Your task to perform on an android device: Search for panasonic triple a on ebay.com, select the first entry, add it to the cart, then select checkout. Image 0: 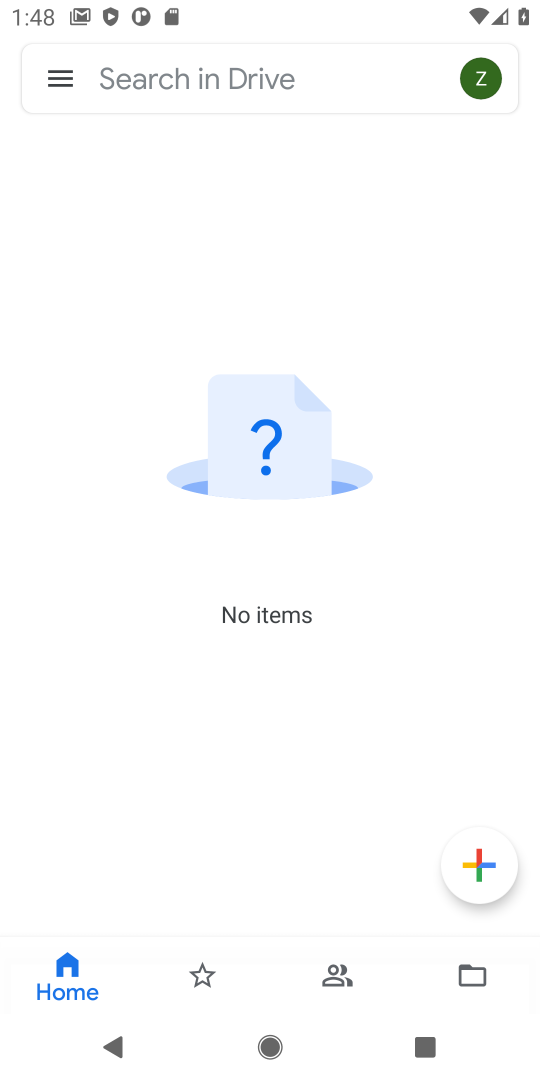
Step 0: press home button
Your task to perform on an android device: Search for panasonic triple a on ebay.com, select the first entry, add it to the cart, then select checkout. Image 1: 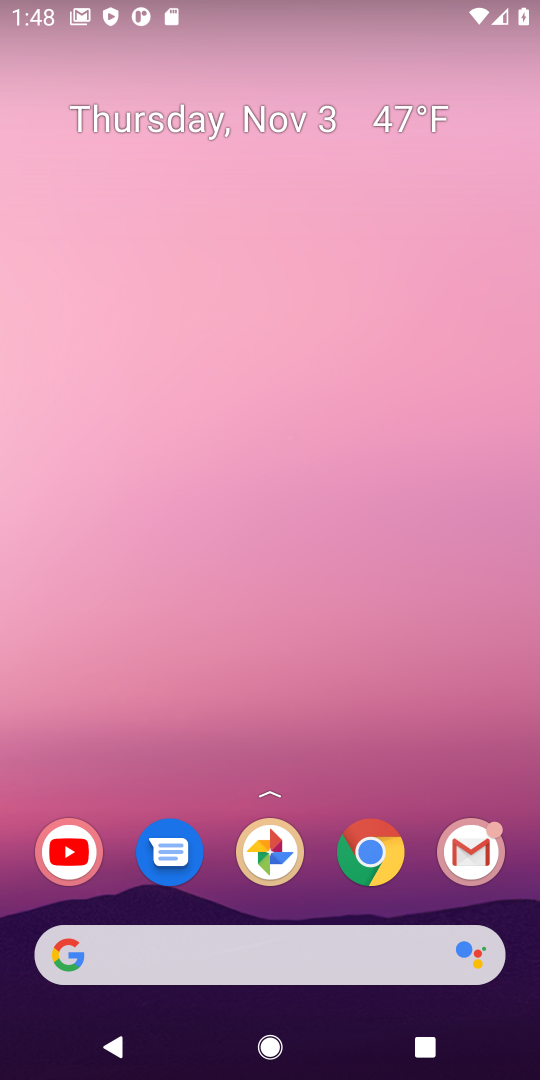
Step 1: click (402, 873)
Your task to perform on an android device: Search for panasonic triple a on ebay.com, select the first entry, add it to the cart, then select checkout. Image 2: 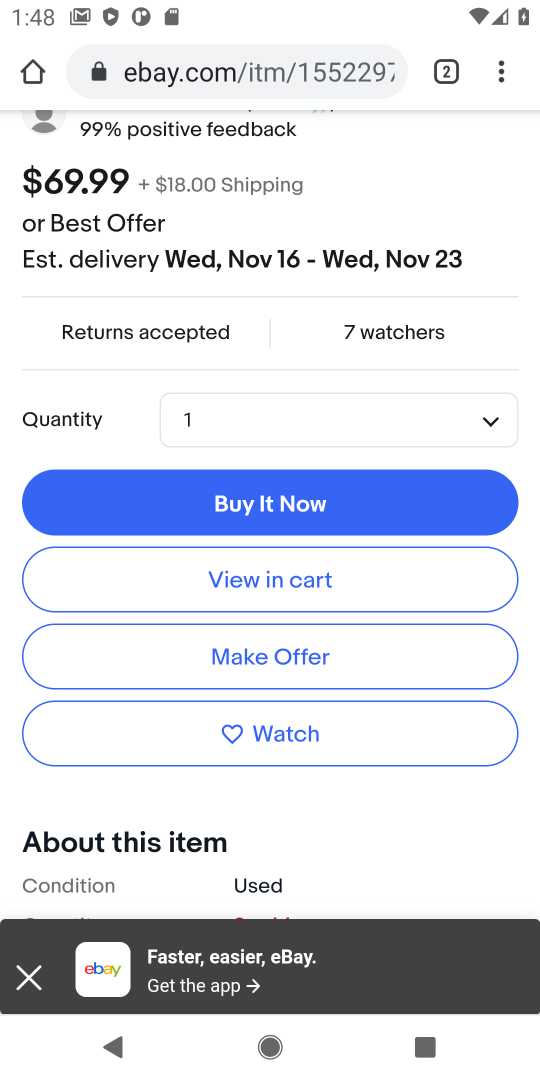
Step 2: drag from (357, 227) to (303, 632)
Your task to perform on an android device: Search for panasonic triple a on ebay.com, select the first entry, add it to the cart, then select checkout. Image 3: 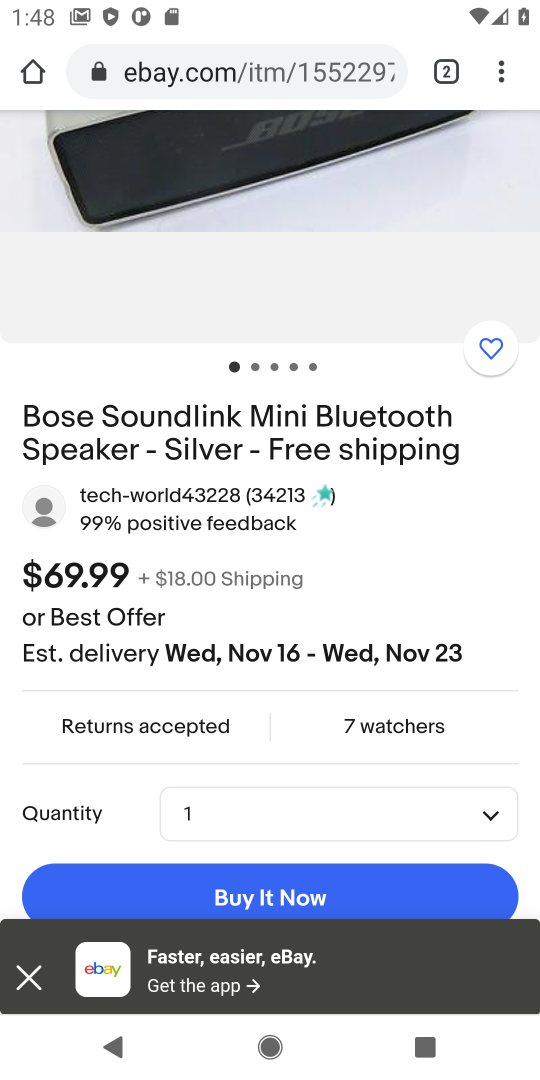
Step 3: drag from (307, 312) to (295, 716)
Your task to perform on an android device: Search for panasonic triple a on ebay.com, select the first entry, add it to the cart, then select checkout. Image 4: 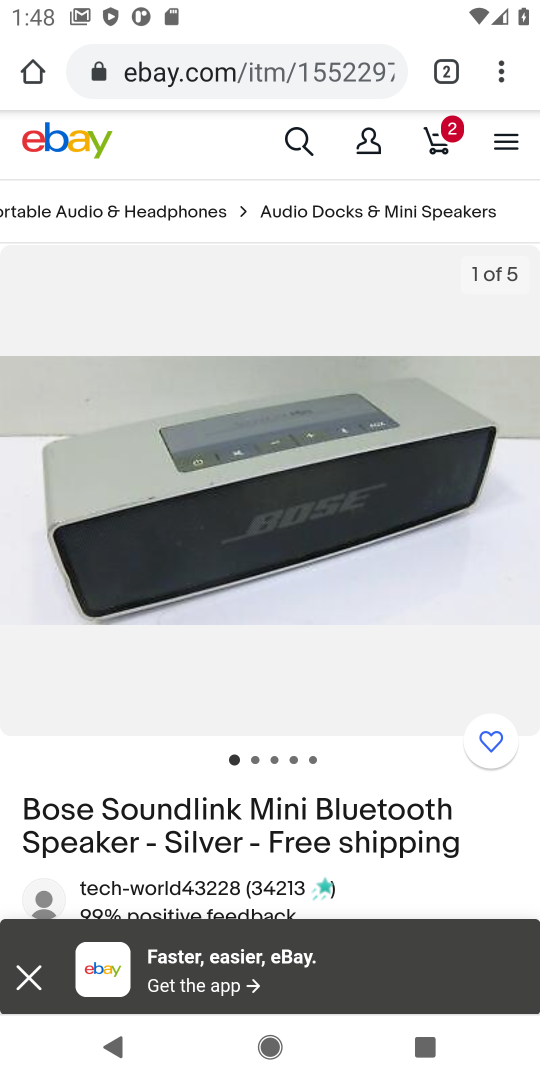
Step 4: drag from (223, 221) to (217, 466)
Your task to perform on an android device: Search for panasonic triple a on ebay.com, select the first entry, add it to the cart, then select checkout. Image 5: 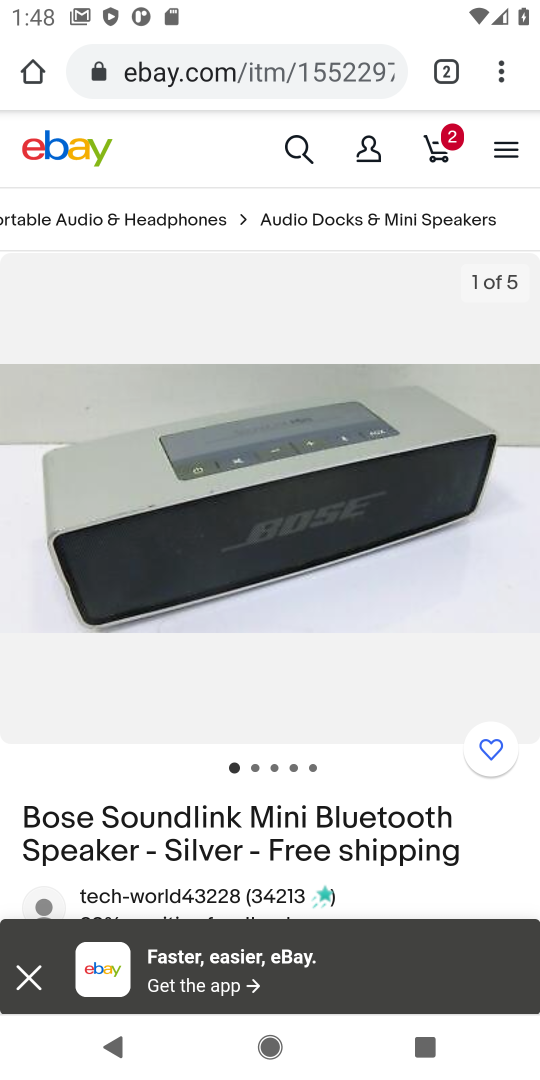
Step 5: click (294, 151)
Your task to perform on an android device: Search for panasonic triple a on ebay.com, select the first entry, add it to the cart, then select checkout. Image 6: 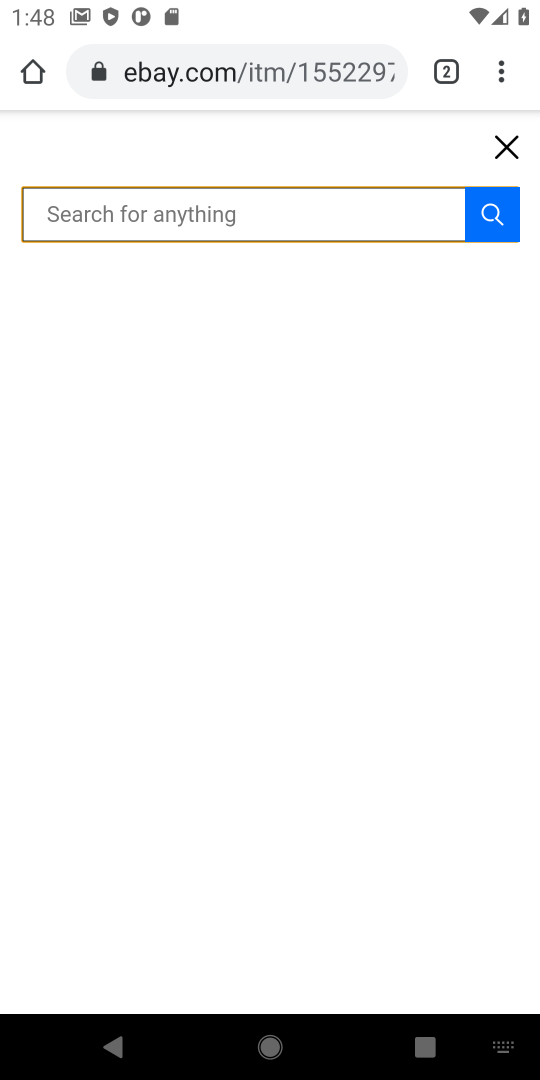
Step 6: type "panasonic triple a"
Your task to perform on an android device: Search for panasonic triple a on ebay.com, select the first entry, add it to the cart, then select checkout. Image 7: 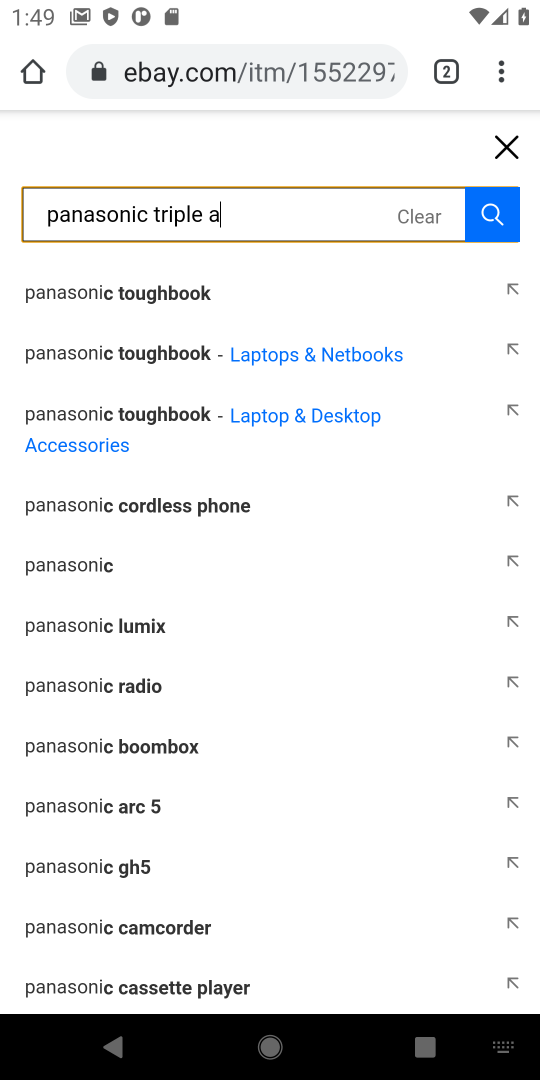
Step 7: click (492, 210)
Your task to perform on an android device: Search for panasonic triple a on ebay.com, select the first entry, add it to the cart, then select checkout. Image 8: 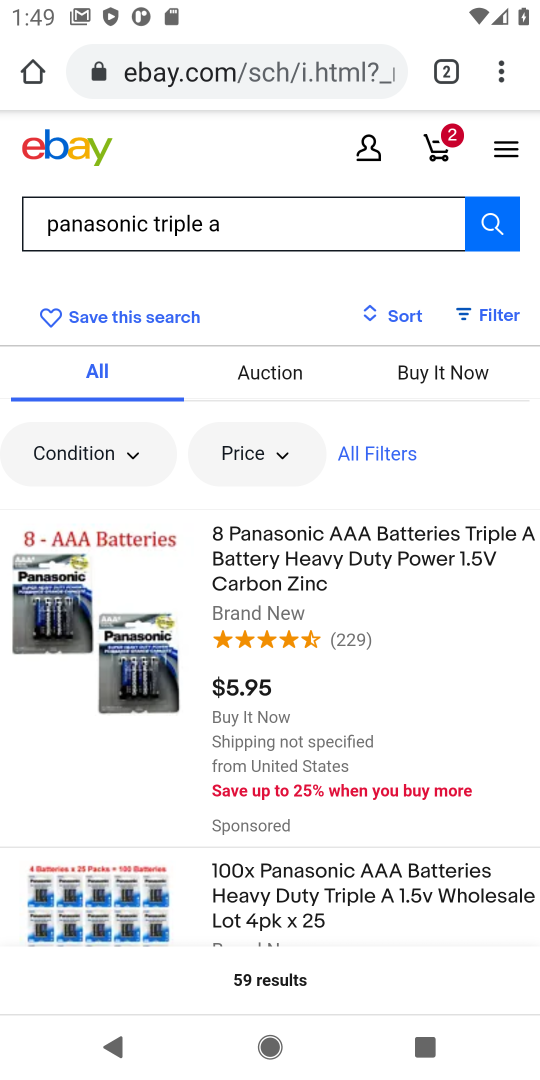
Step 8: click (242, 663)
Your task to perform on an android device: Search for panasonic triple a on ebay.com, select the first entry, add it to the cart, then select checkout. Image 9: 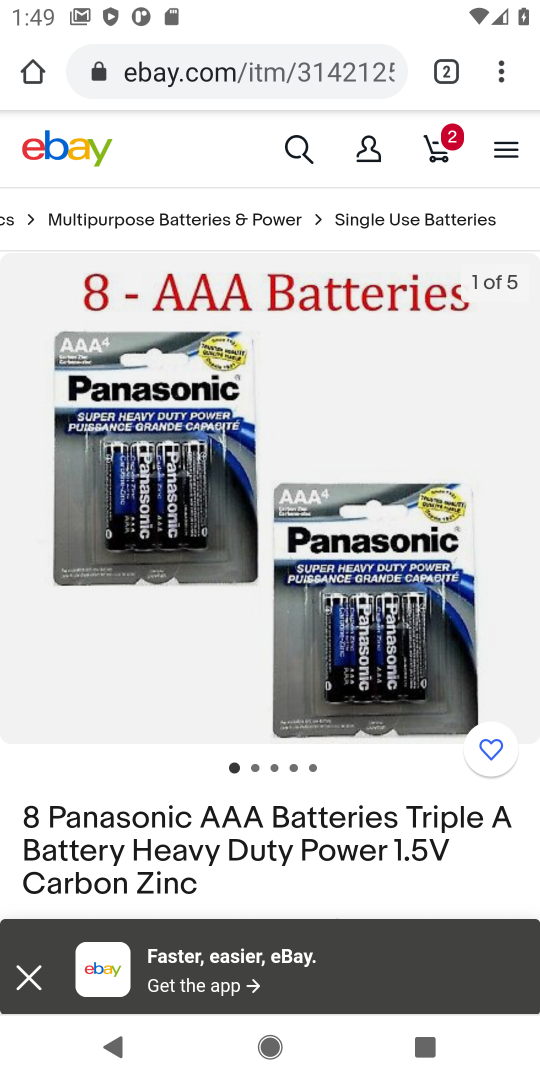
Step 9: drag from (249, 636) to (256, 197)
Your task to perform on an android device: Search for panasonic triple a on ebay.com, select the first entry, add it to the cart, then select checkout. Image 10: 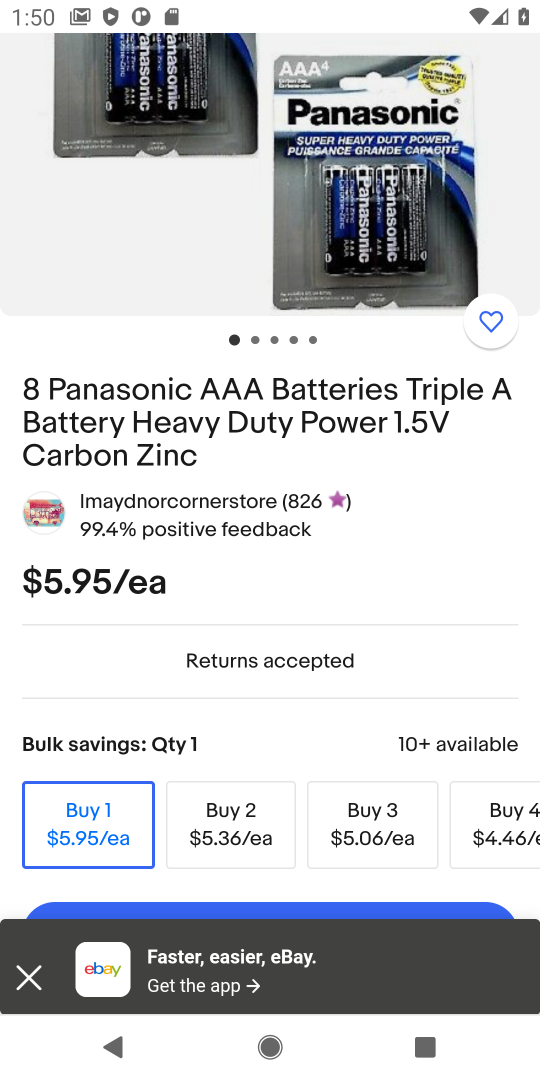
Step 10: drag from (281, 863) to (284, 617)
Your task to perform on an android device: Search for panasonic triple a on ebay.com, select the first entry, add it to the cart, then select checkout. Image 11: 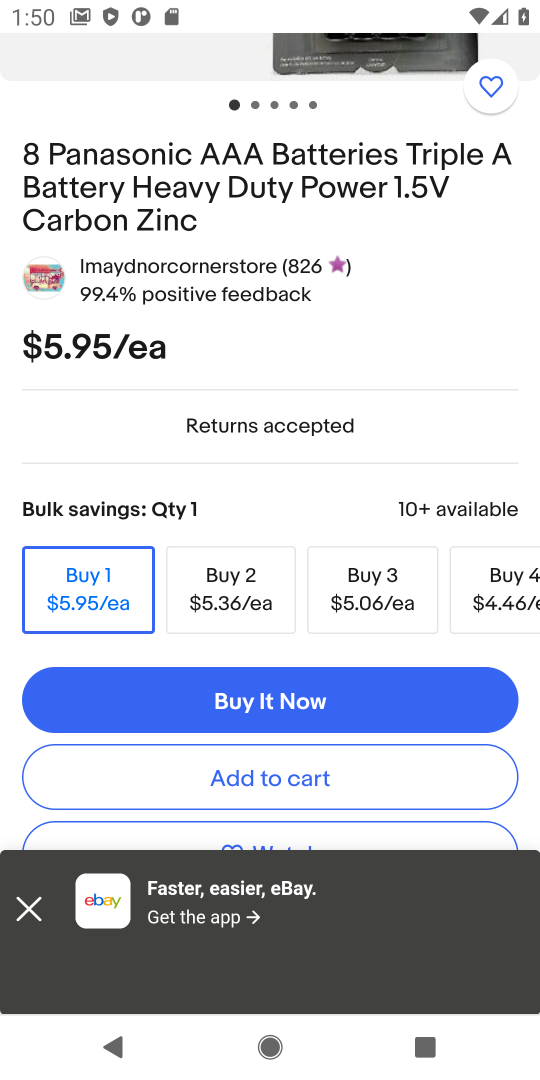
Step 11: click (241, 768)
Your task to perform on an android device: Search for panasonic triple a on ebay.com, select the first entry, add it to the cart, then select checkout. Image 12: 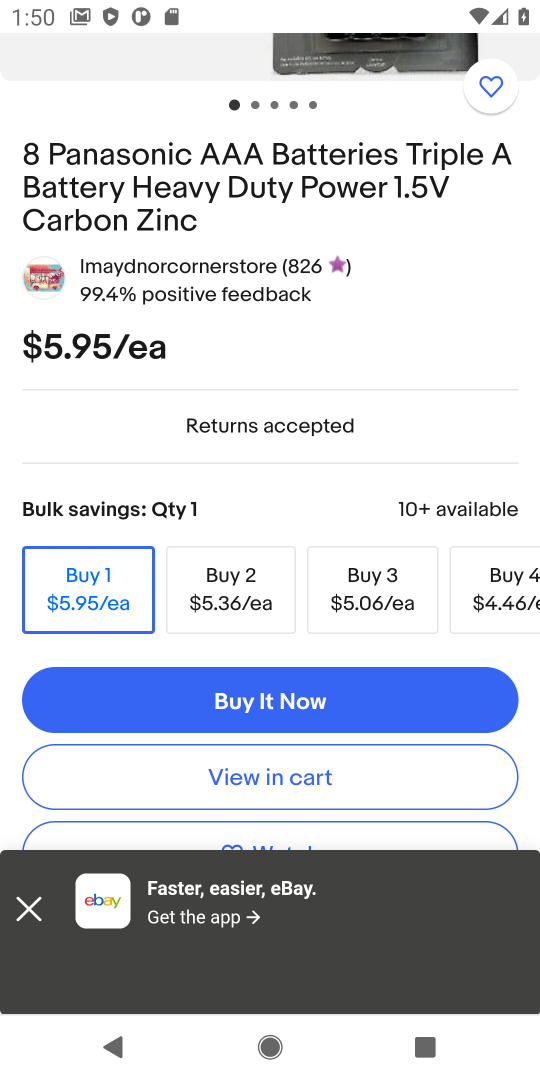
Step 12: click (240, 774)
Your task to perform on an android device: Search for panasonic triple a on ebay.com, select the first entry, add it to the cart, then select checkout. Image 13: 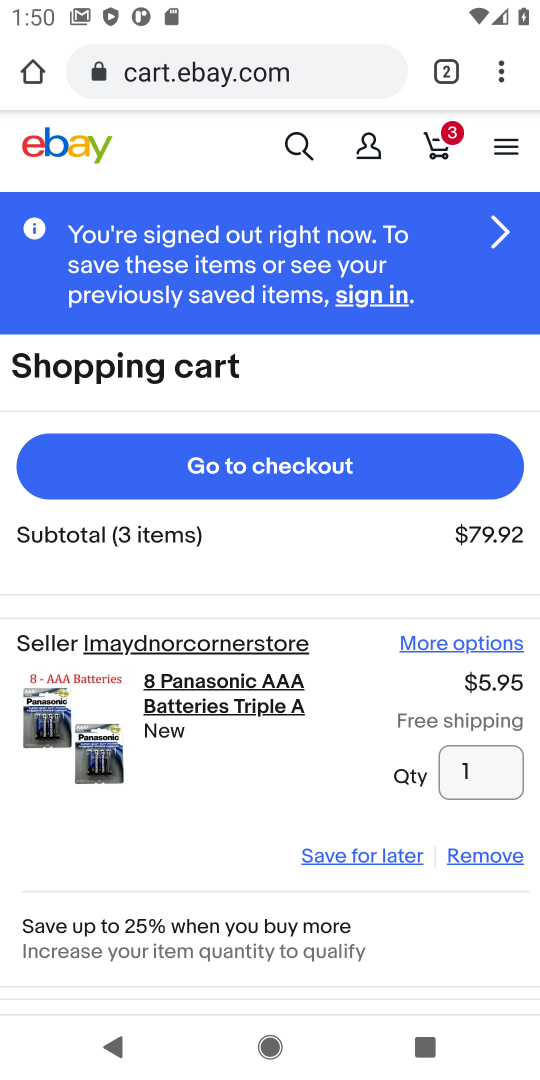
Step 13: click (243, 475)
Your task to perform on an android device: Search for panasonic triple a on ebay.com, select the first entry, add it to the cart, then select checkout. Image 14: 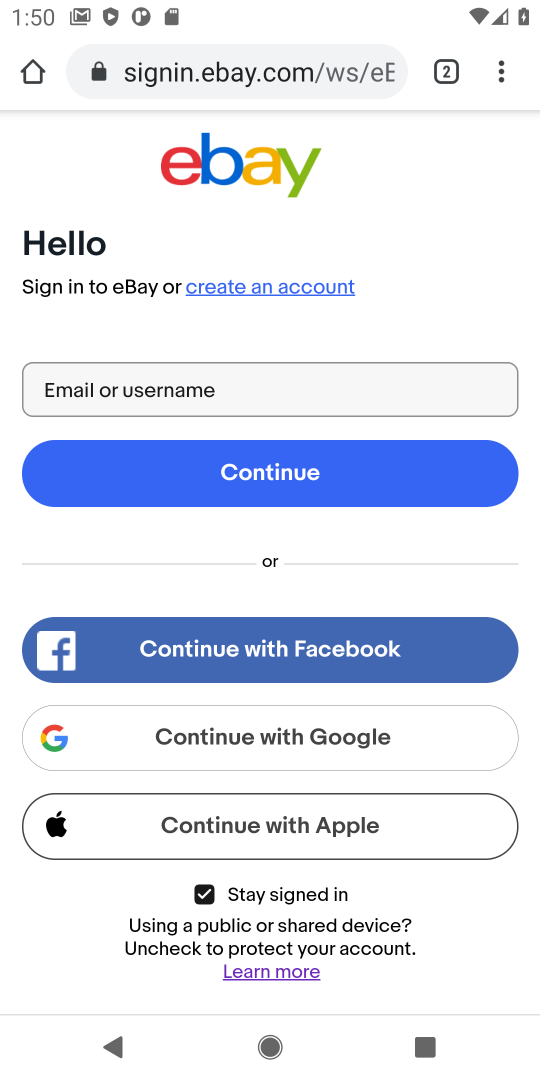
Step 14: task complete